Your task to perform on an android device: Clear the shopping cart on walmart. Search for "bose soundlink mini" on walmart, select the first entry, add it to the cart, then select checkout. Image 0: 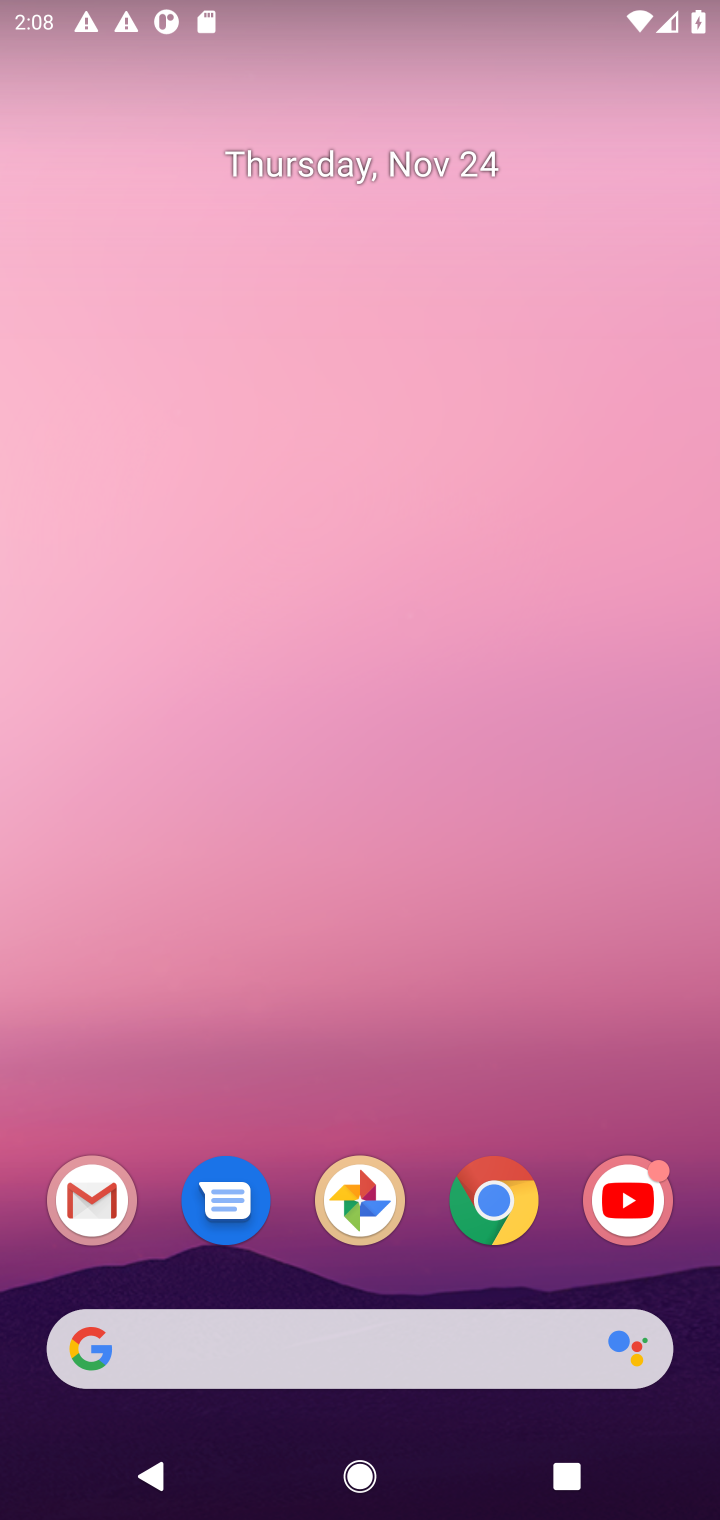
Step 0: press home button
Your task to perform on an android device: Clear the shopping cart on walmart. Search for "bose soundlink mini" on walmart, select the first entry, add it to the cart, then select checkout. Image 1: 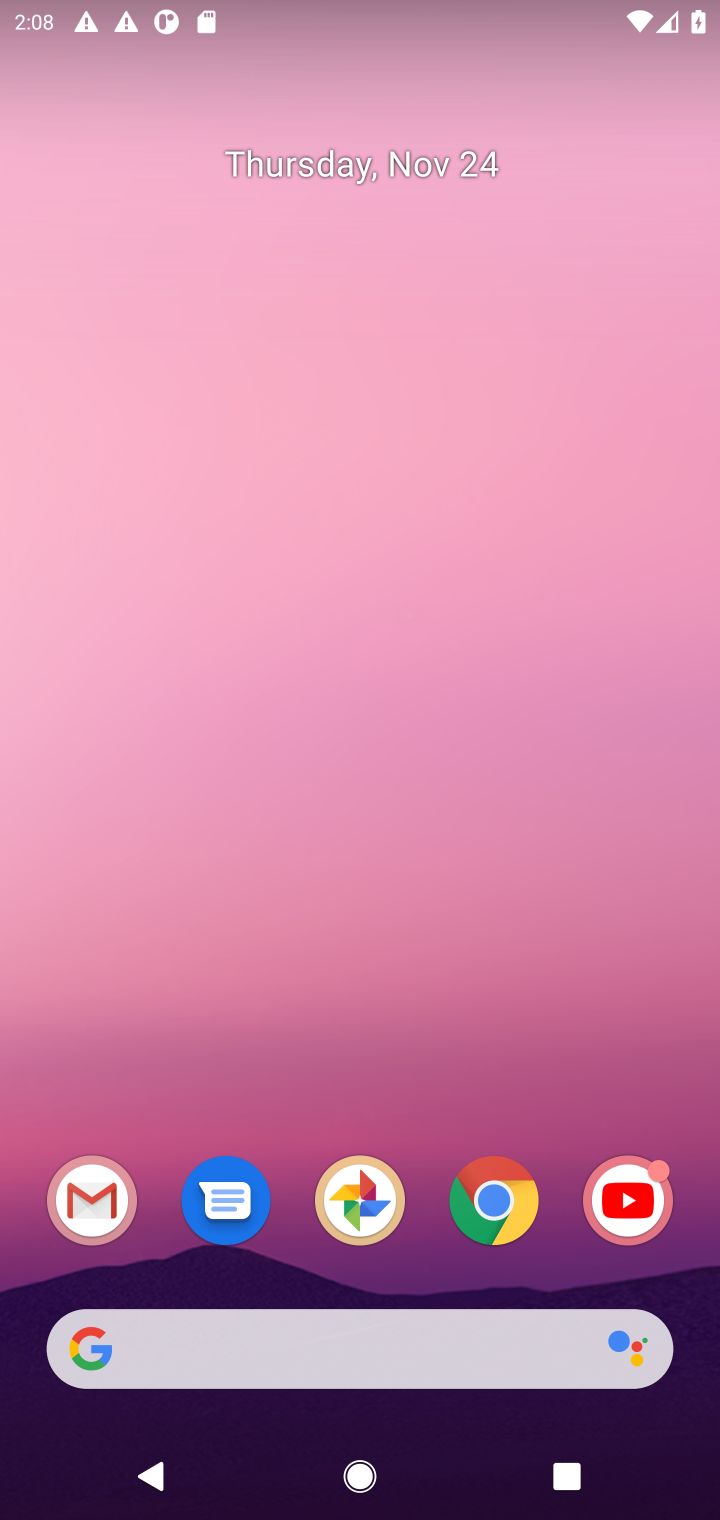
Step 1: click (303, 1370)
Your task to perform on an android device: Clear the shopping cart on walmart. Search for "bose soundlink mini" on walmart, select the first entry, add it to the cart, then select checkout. Image 2: 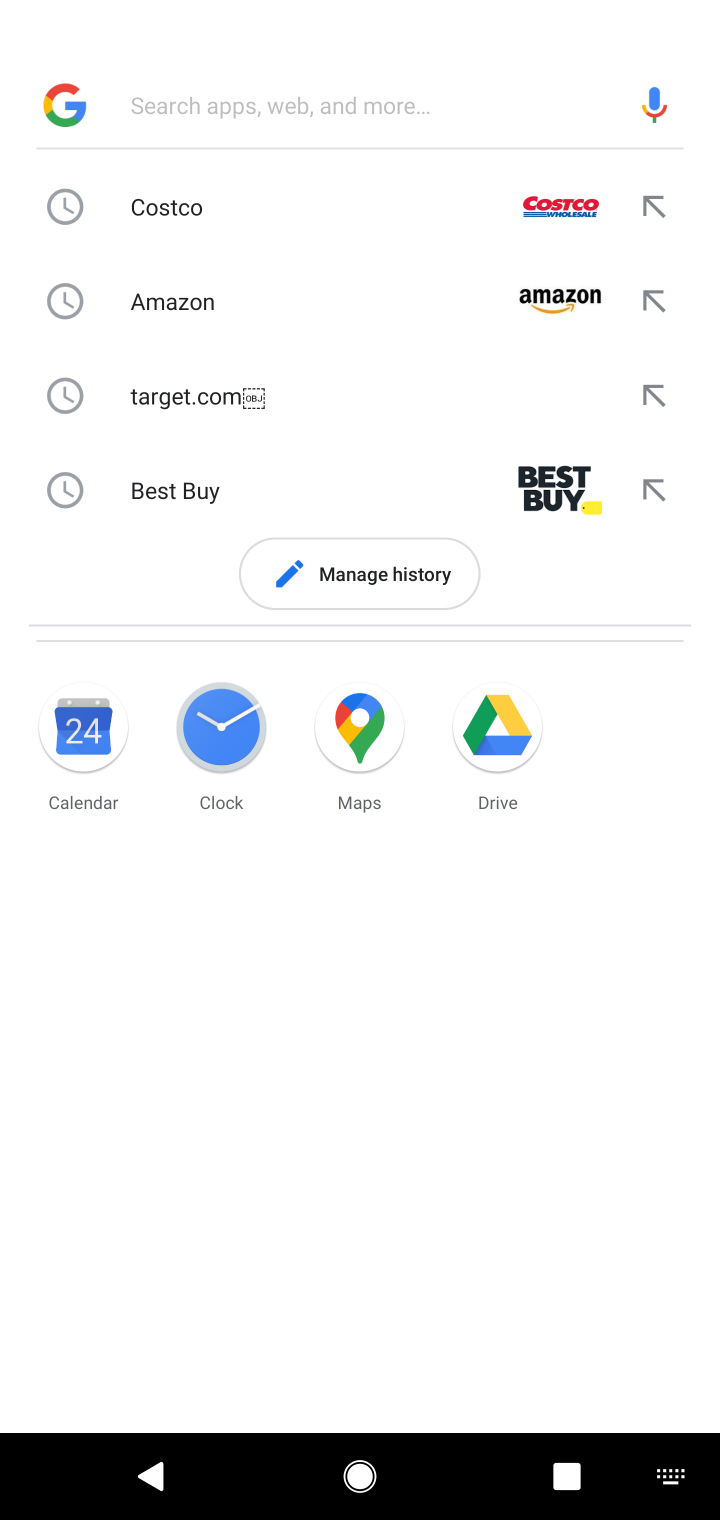
Step 2: type "bose sundlink"
Your task to perform on an android device: Clear the shopping cart on walmart. Search for "bose soundlink mini" on walmart, select the first entry, add it to the cart, then select checkout. Image 3: 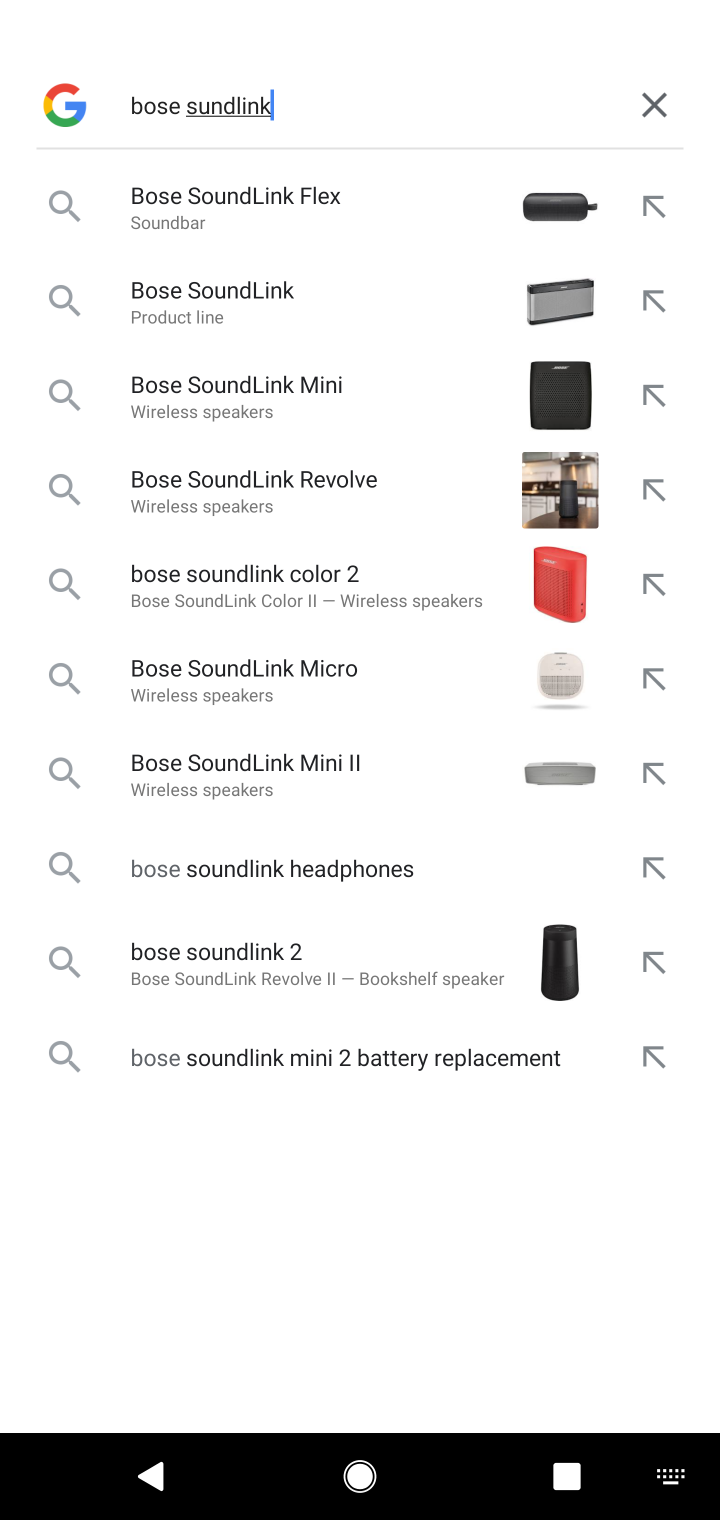
Step 3: click (287, 243)
Your task to perform on an android device: Clear the shopping cart on walmart. Search for "bose soundlink mini" on walmart, select the first entry, add it to the cart, then select checkout. Image 4: 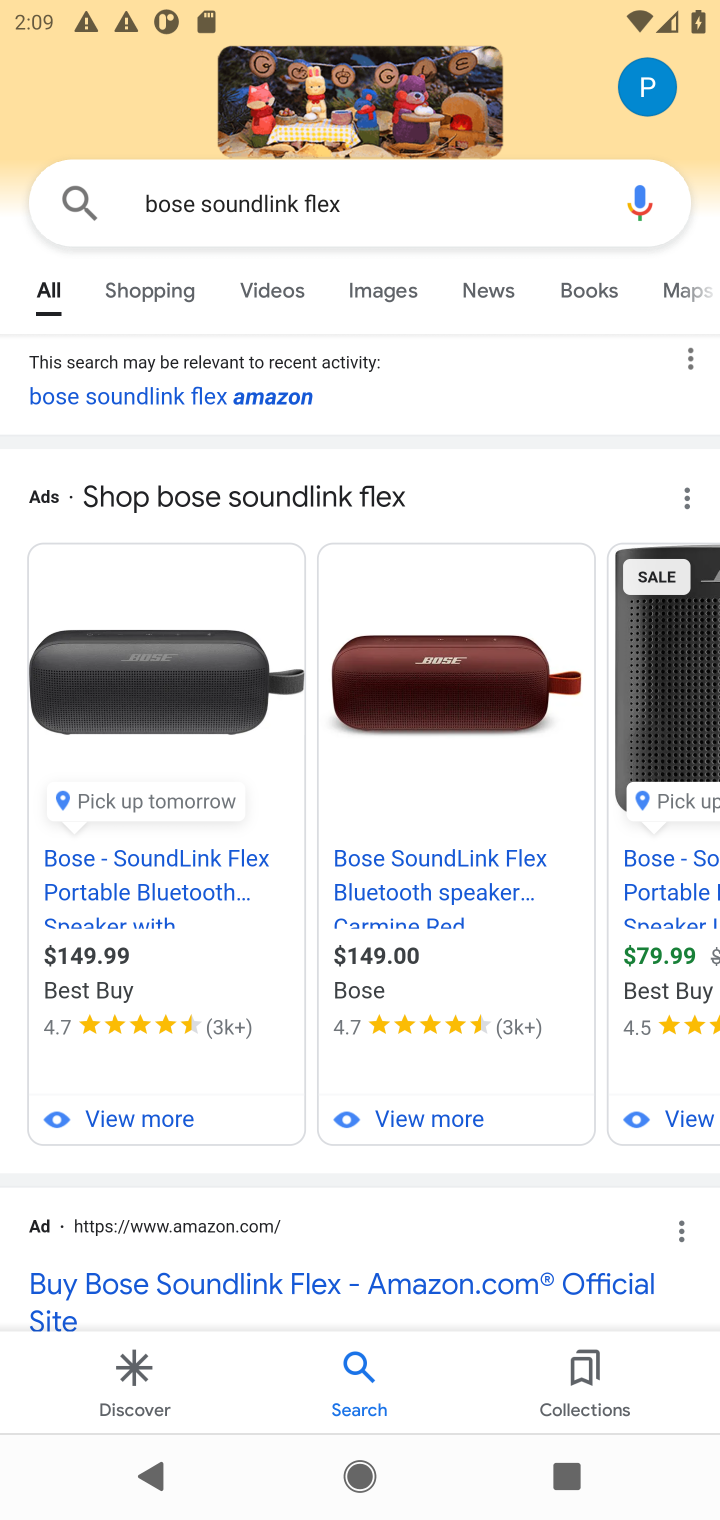
Step 4: click (425, 1251)
Your task to perform on an android device: Clear the shopping cart on walmart. Search for "bose soundlink mini" on walmart, select the first entry, add it to the cart, then select checkout. Image 5: 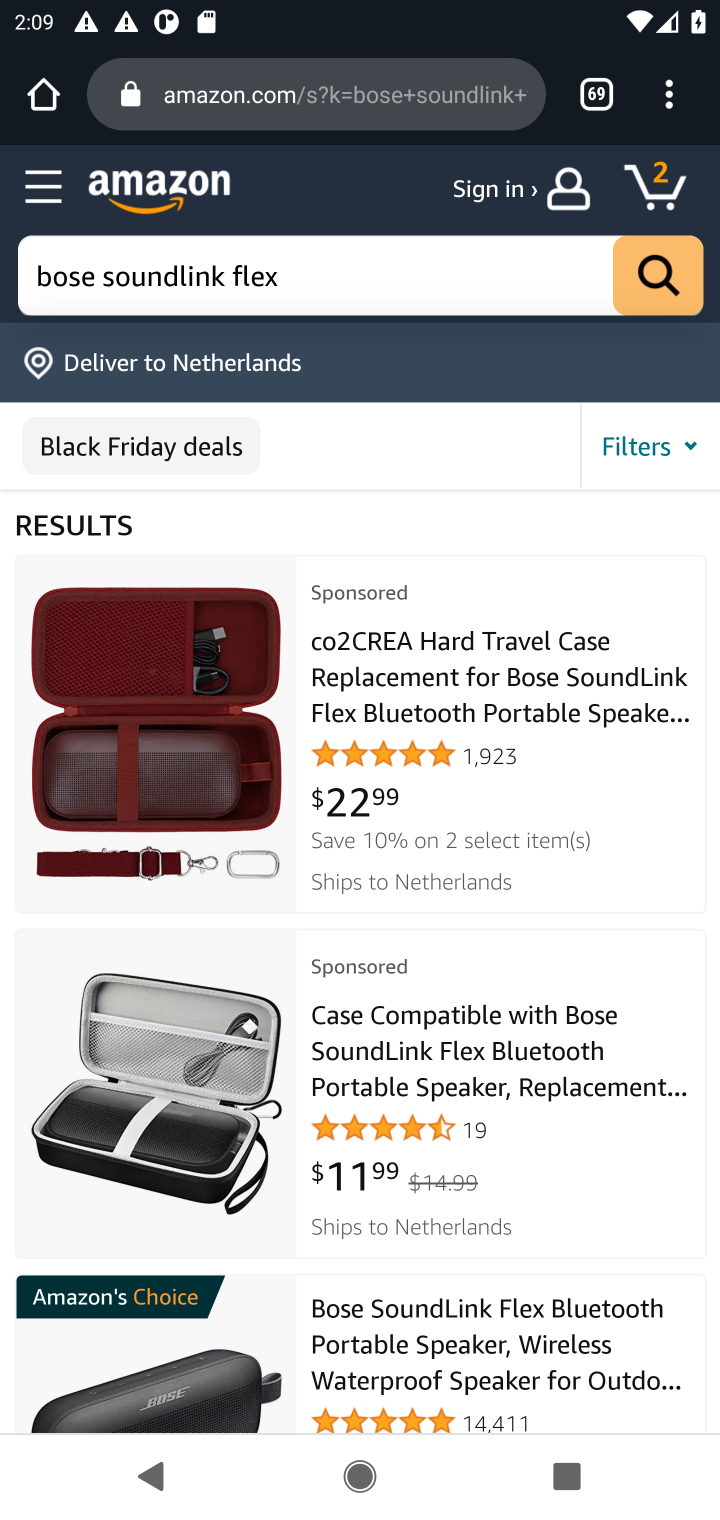
Step 5: task complete